Your task to perform on an android device: See recent photos Image 0: 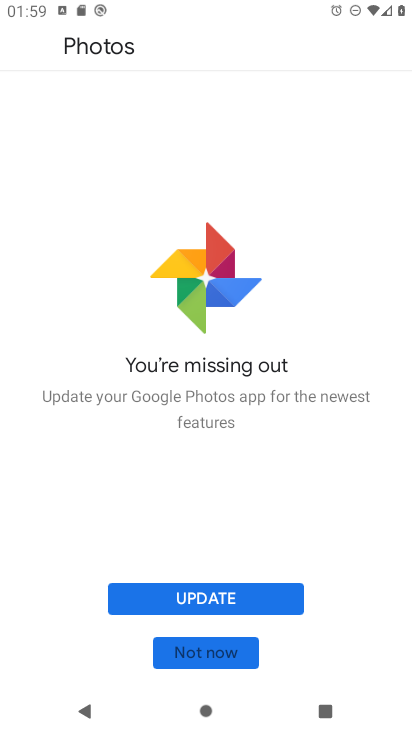
Step 0: click (189, 596)
Your task to perform on an android device: See recent photos Image 1: 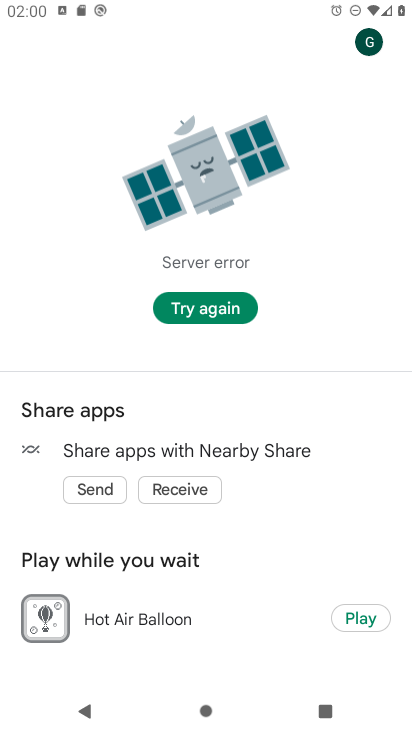
Step 1: click (217, 299)
Your task to perform on an android device: See recent photos Image 2: 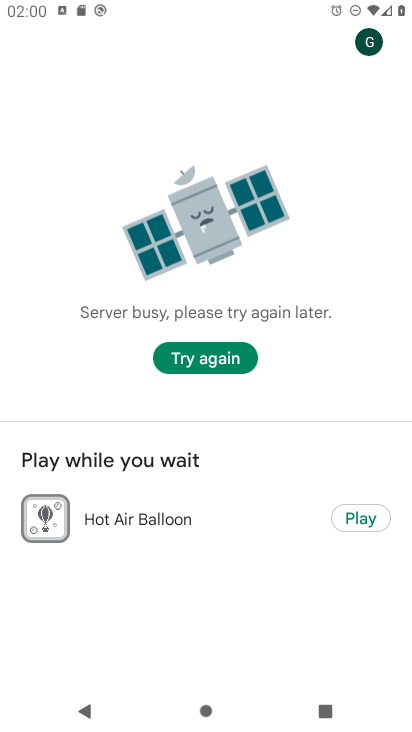
Step 2: click (195, 369)
Your task to perform on an android device: See recent photos Image 3: 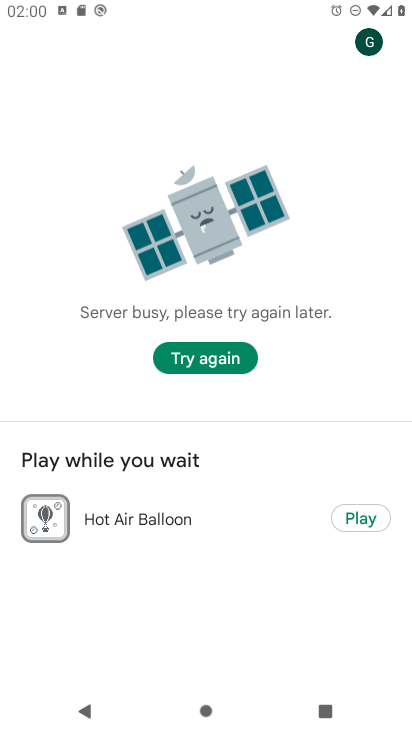
Step 3: task complete